Your task to perform on an android device: Go to Maps Image 0: 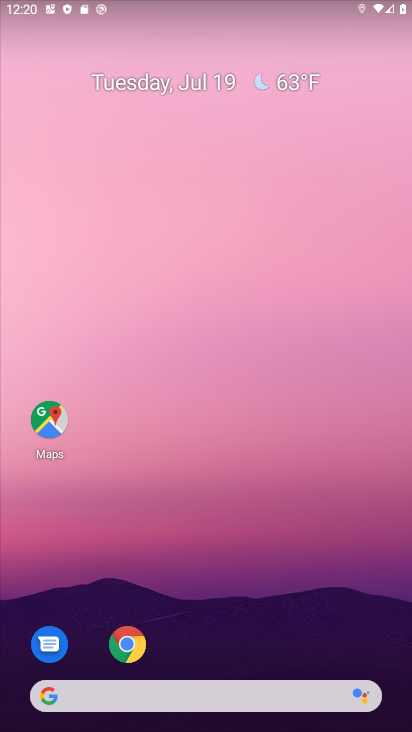
Step 0: drag from (240, 710) to (226, 252)
Your task to perform on an android device: Go to Maps Image 1: 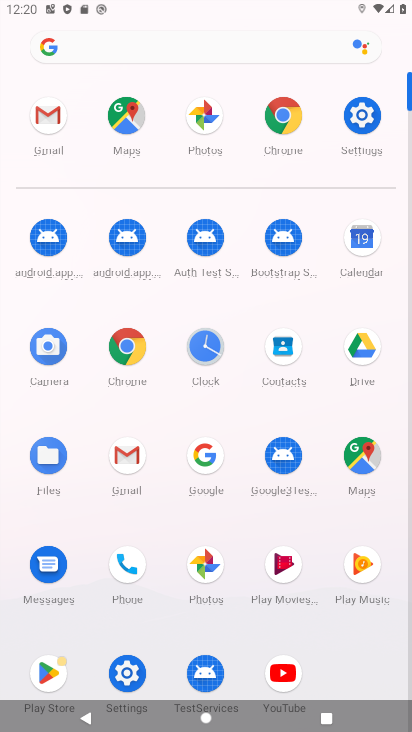
Step 1: click (361, 461)
Your task to perform on an android device: Go to Maps Image 2: 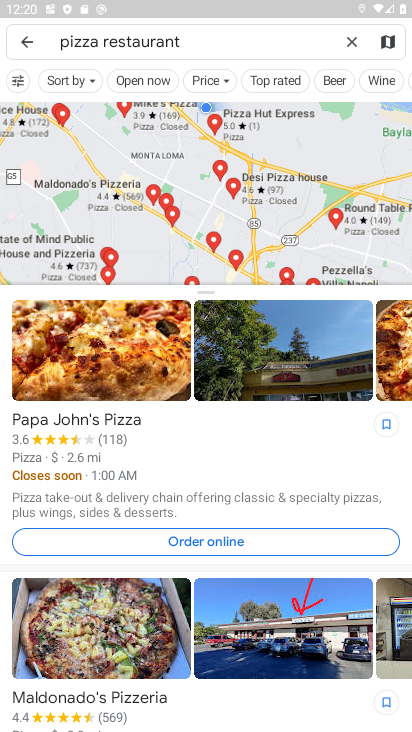
Step 2: task complete